Your task to perform on an android device: set the timer Image 0: 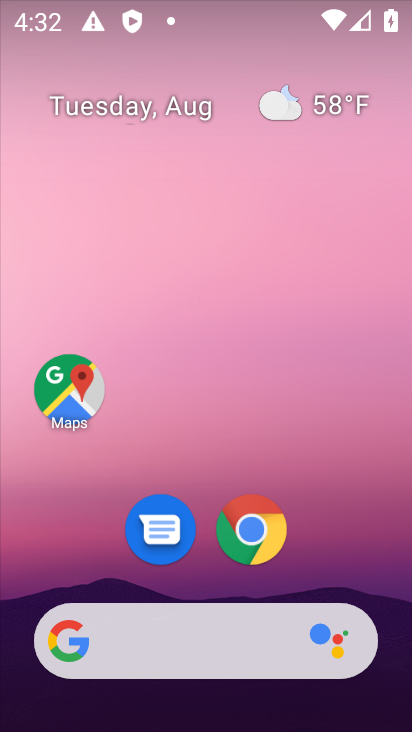
Step 0: drag from (223, 470) to (225, 39)
Your task to perform on an android device: set the timer Image 1: 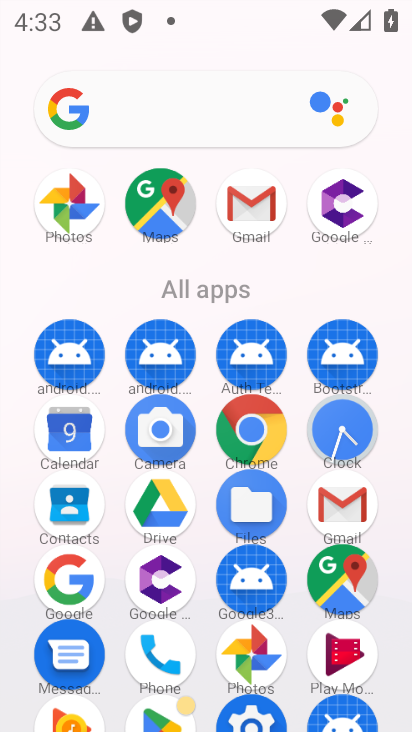
Step 1: click (333, 433)
Your task to perform on an android device: set the timer Image 2: 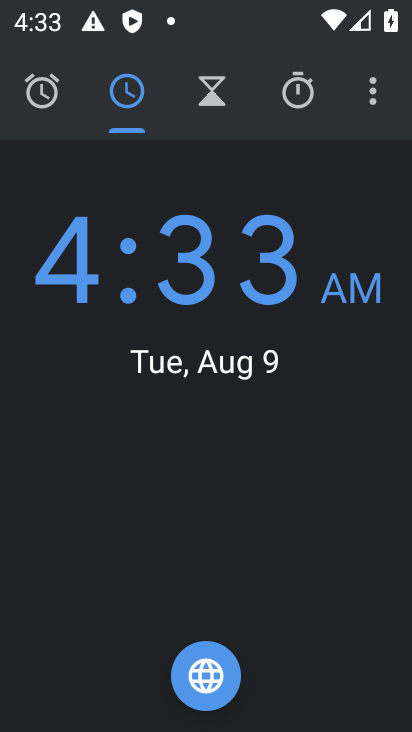
Step 2: click (216, 96)
Your task to perform on an android device: set the timer Image 3: 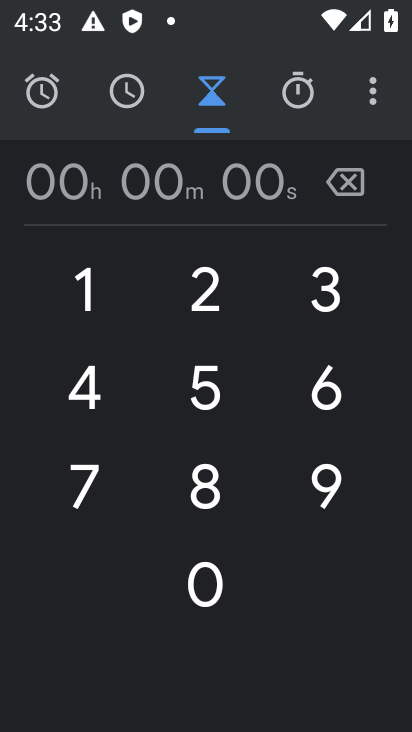
Step 3: click (270, 183)
Your task to perform on an android device: set the timer Image 4: 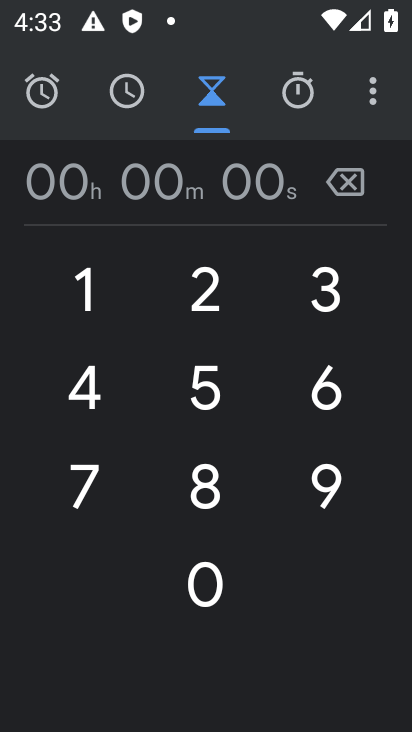
Step 4: type "11"
Your task to perform on an android device: set the timer Image 5: 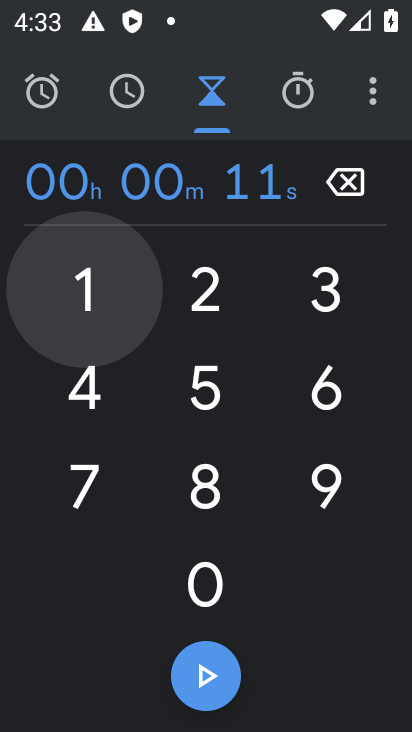
Step 5: click (201, 662)
Your task to perform on an android device: set the timer Image 6: 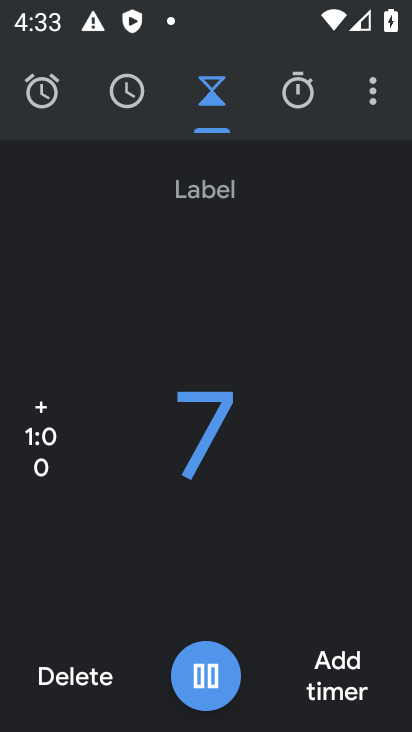
Step 6: task complete